Your task to perform on an android device: Go to internet settings Image 0: 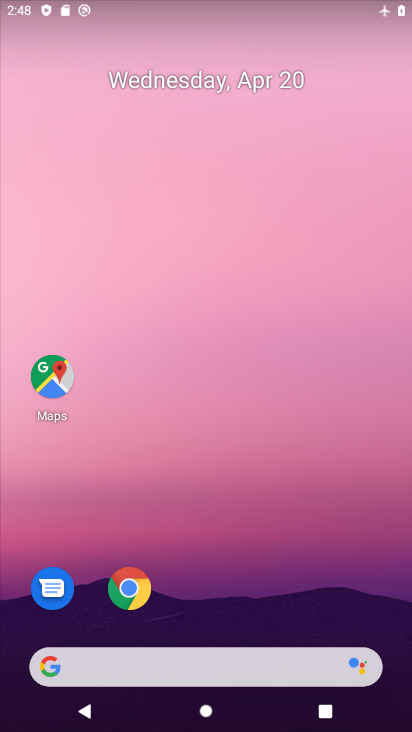
Step 0: drag from (230, 413) to (282, 29)
Your task to perform on an android device: Go to internet settings Image 1: 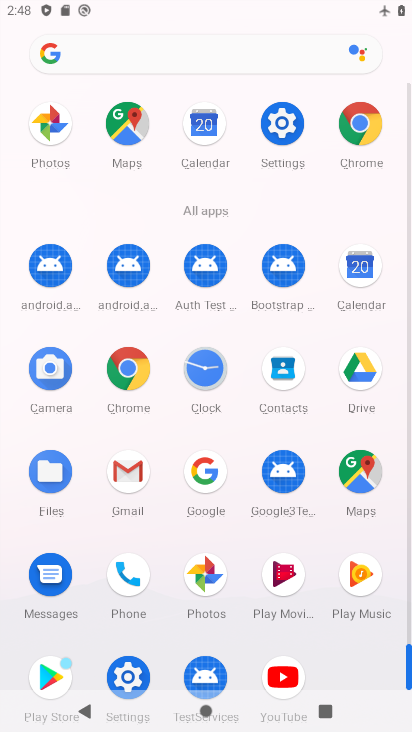
Step 1: click (133, 678)
Your task to perform on an android device: Go to internet settings Image 2: 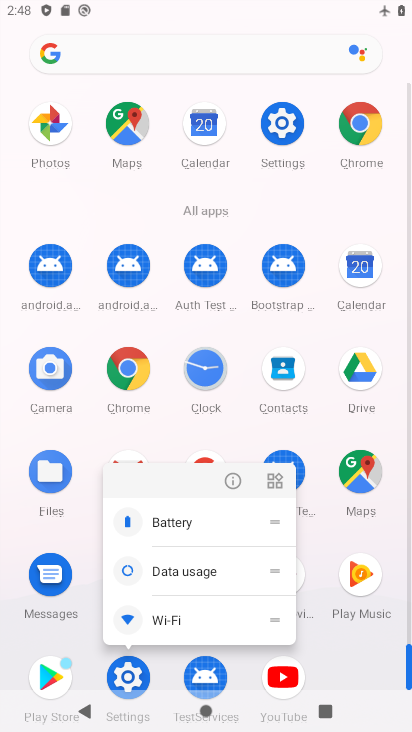
Step 2: click (133, 678)
Your task to perform on an android device: Go to internet settings Image 3: 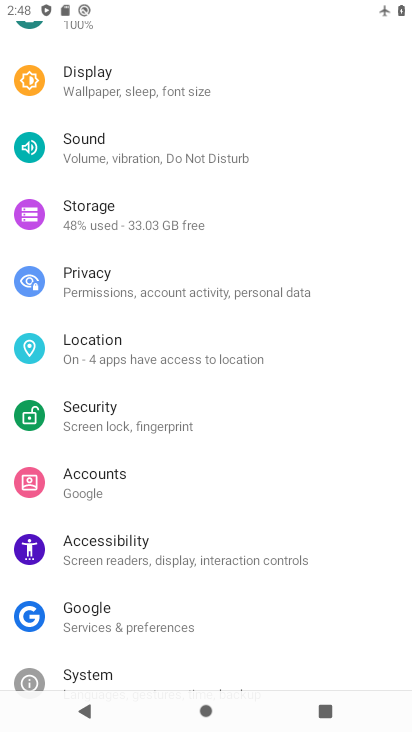
Step 3: drag from (145, 298) to (139, 615)
Your task to perform on an android device: Go to internet settings Image 4: 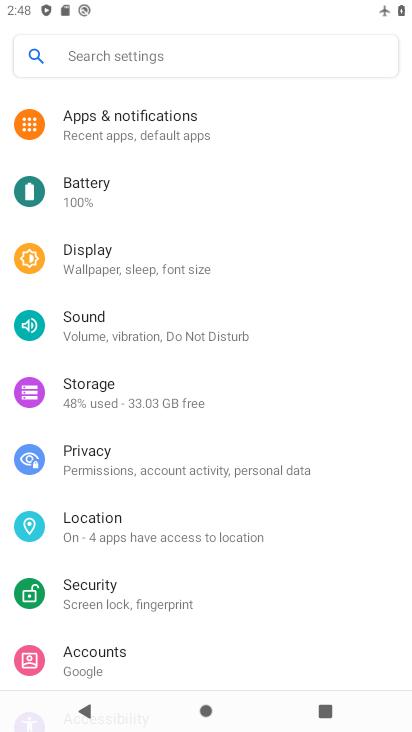
Step 4: click (111, 125)
Your task to perform on an android device: Go to internet settings Image 5: 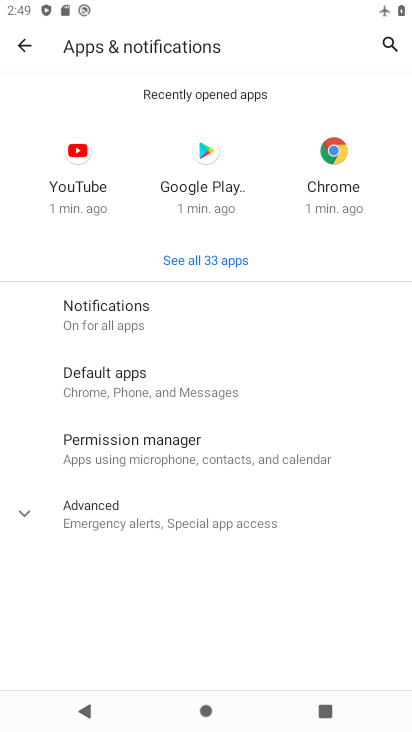
Step 5: press back button
Your task to perform on an android device: Go to internet settings Image 6: 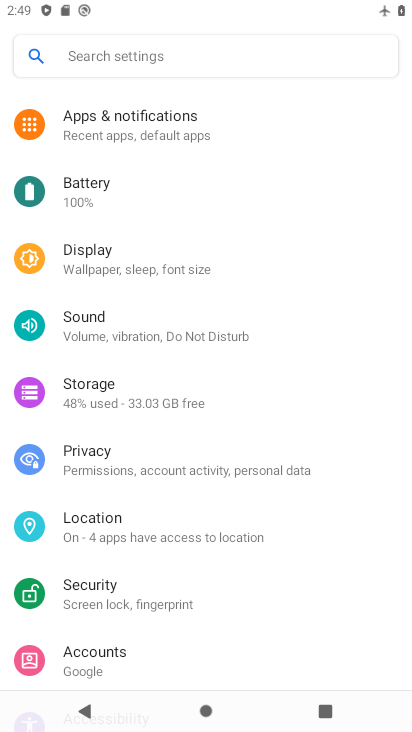
Step 6: drag from (105, 171) to (114, 540)
Your task to perform on an android device: Go to internet settings Image 7: 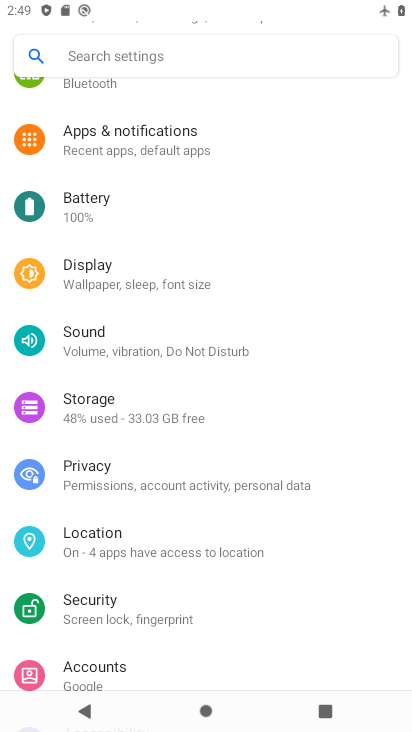
Step 7: drag from (140, 328) to (143, 635)
Your task to perform on an android device: Go to internet settings Image 8: 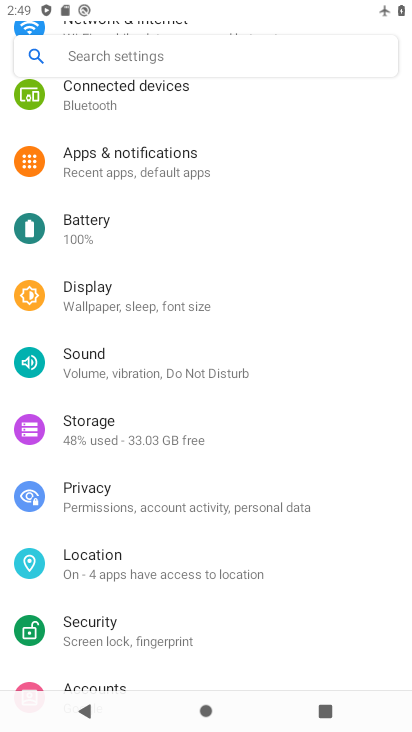
Step 8: drag from (143, 196) to (196, 666)
Your task to perform on an android device: Go to internet settings Image 9: 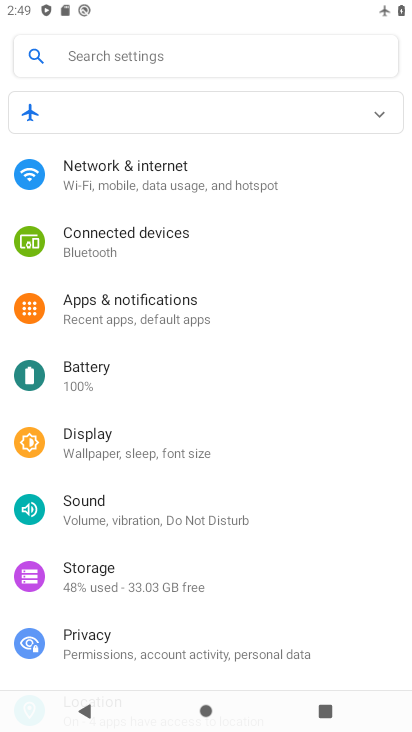
Step 9: click (210, 174)
Your task to perform on an android device: Go to internet settings Image 10: 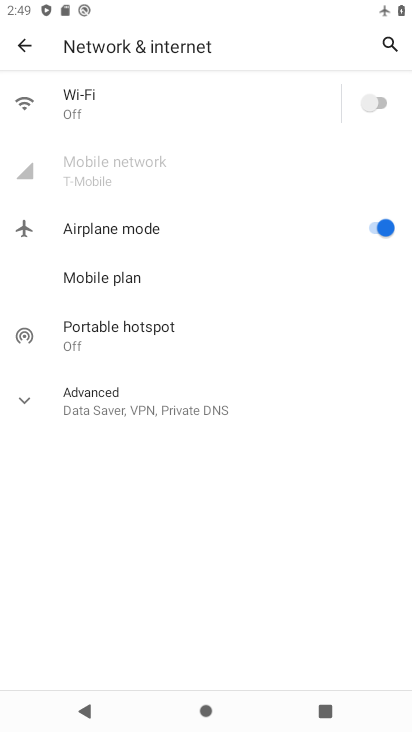
Step 10: task complete